Your task to perform on an android device: Go to display settings Image 0: 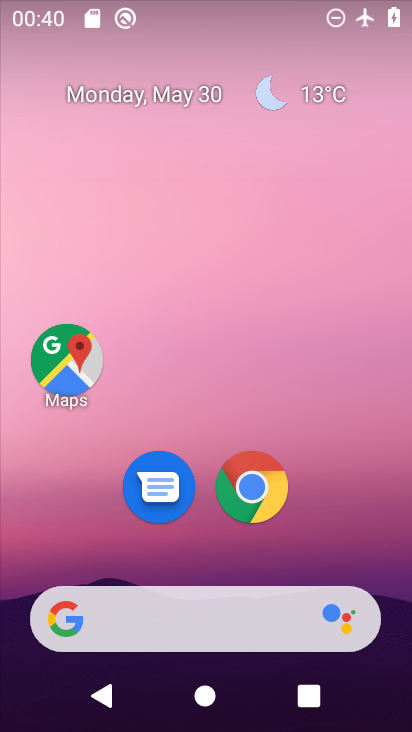
Step 0: drag from (379, 577) to (361, 97)
Your task to perform on an android device: Go to display settings Image 1: 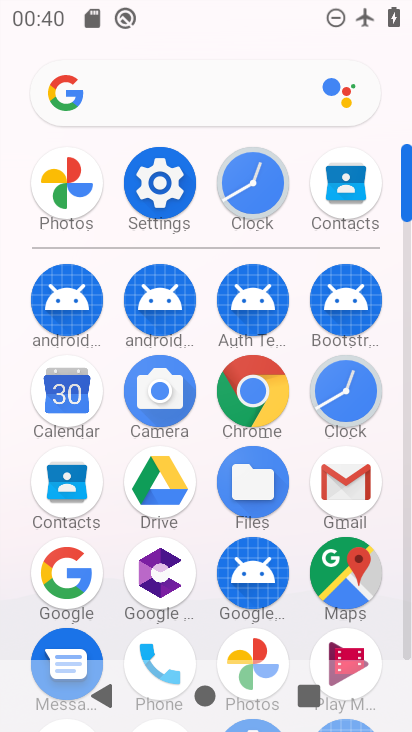
Step 1: click (180, 170)
Your task to perform on an android device: Go to display settings Image 2: 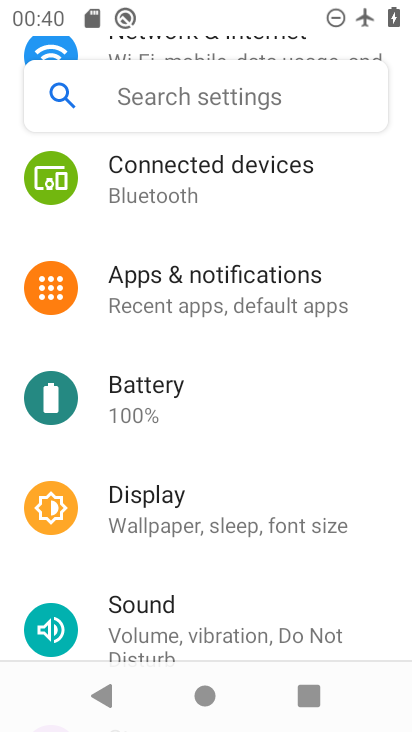
Step 2: click (162, 516)
Your task to perform on an android device: Go to display settings Image 3: 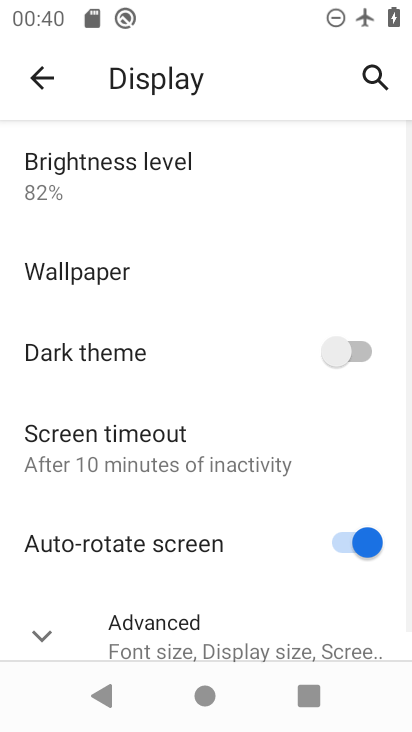
Step 3: task complete